Your task to perform on an android device: Search for alienware area 51 on costco, select the first entry, add it to the cart, then select checkout. Image 0: 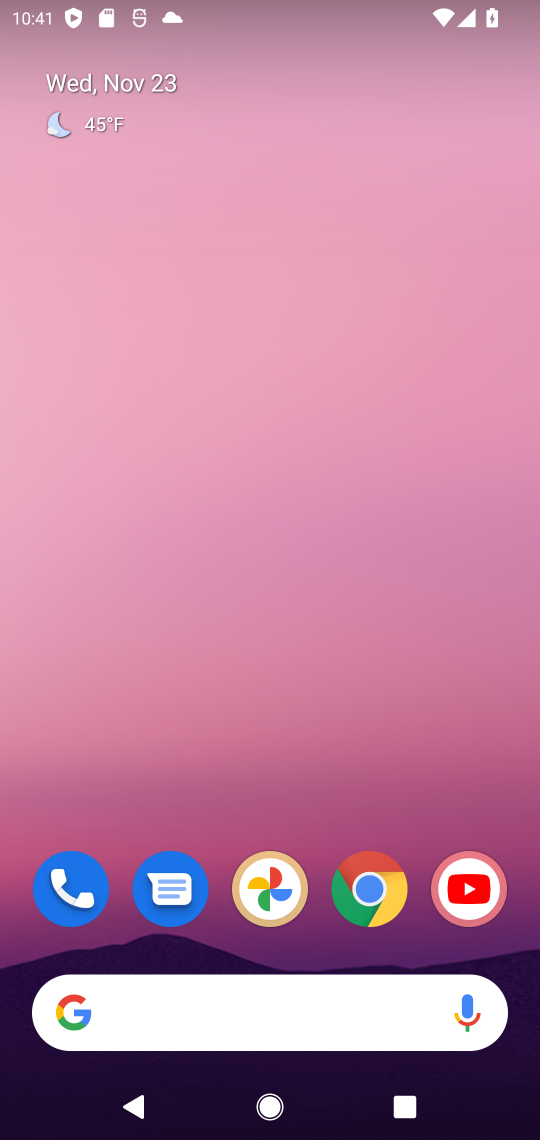
Step 0: click (364, 893)
Your task to perform on an android device: Search for alienware area 51 on costco, select the first entry, add it to the cart, then select checkout. Image 1: 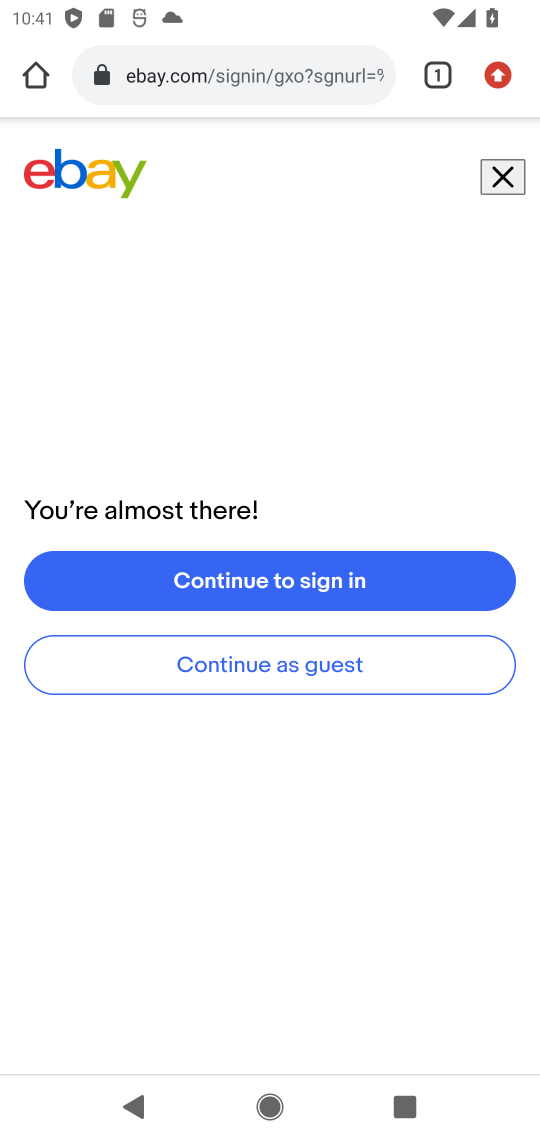
Step 1: click (186, 84)
Your task to perform on an android device: Search for alienware area 51 on costco, select the first entry, add it to the cart, then select checkout. Image 2: 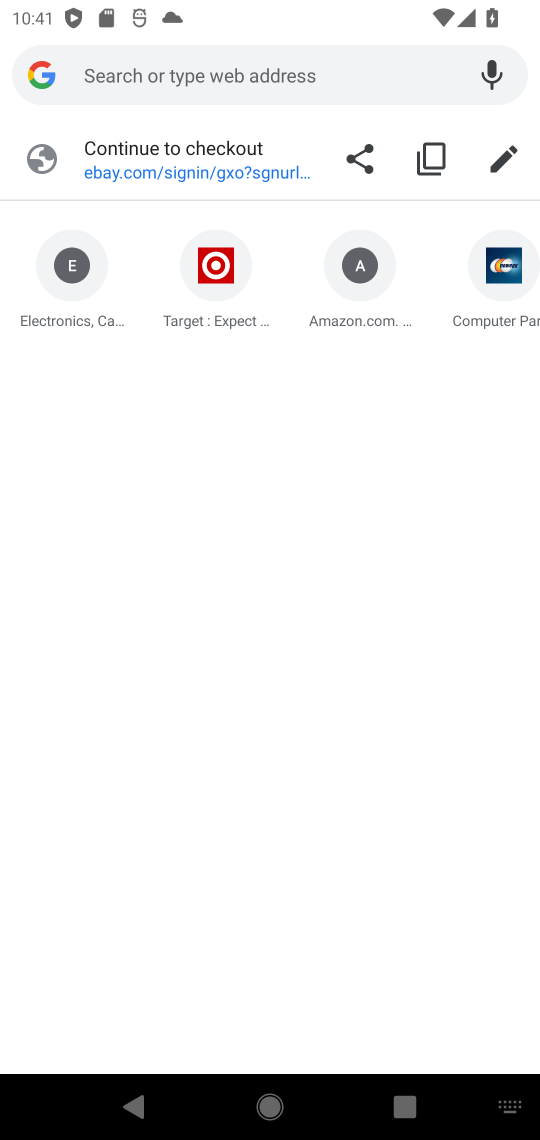
Step 2: type "costco.com"
Your task to perform on an android device: Search for alienware area 51 on costco, select the first entry, add it to the cart, then select checkout. Image 3: 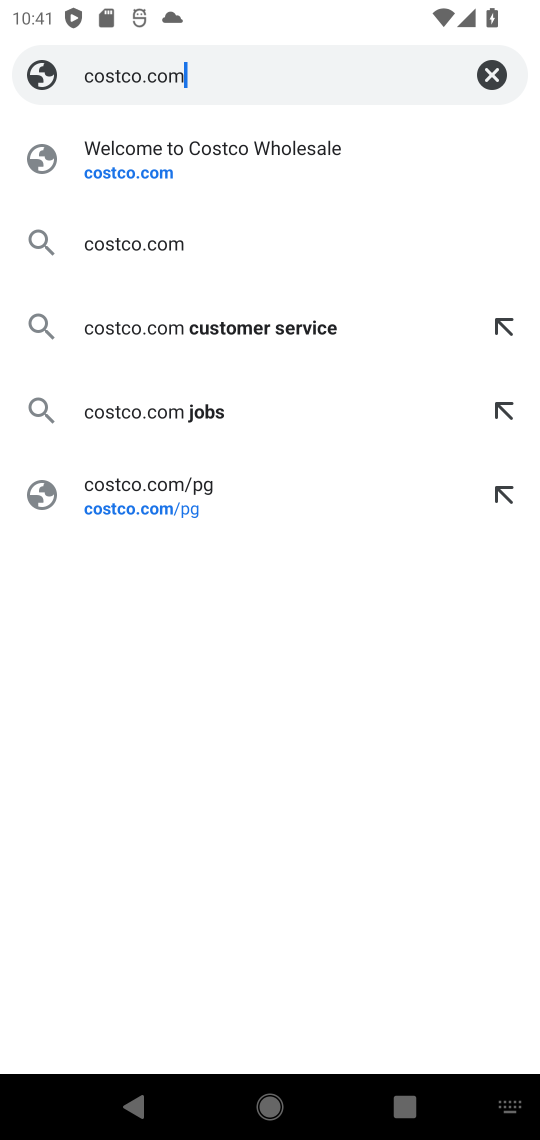
Step 3: click (97, 171)
Your task to perform on an android device: Search for alienware area 51 on costco, select the first entry, add it to the cart, then select checkout. Image 4: 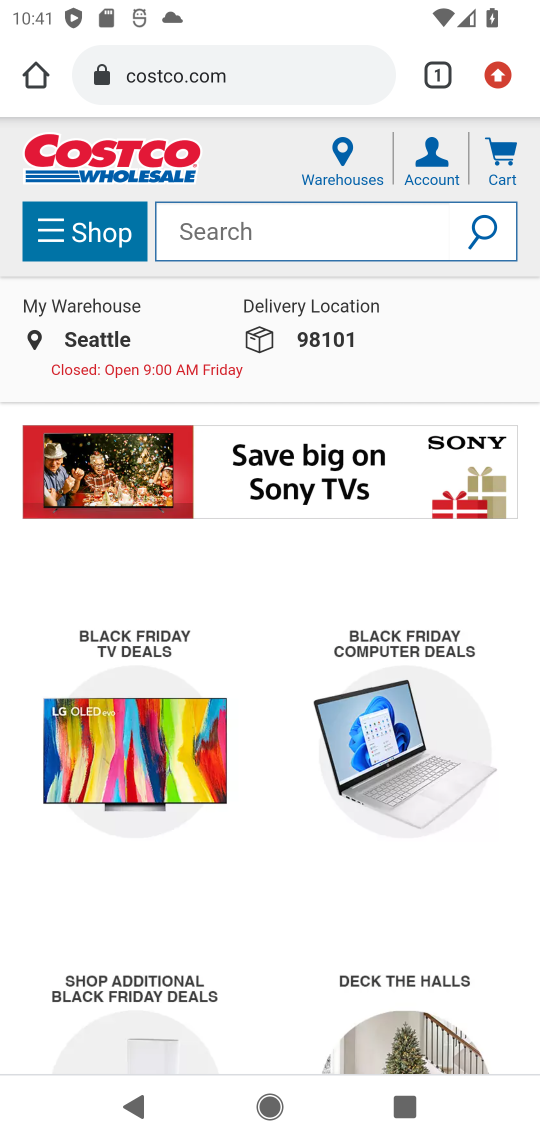
Step 4: click (237, 229)
Your task to perform on an android device: Search for alienware area 51 on costco, select the first entry, add it to the cart, then select checkout. Image 5: 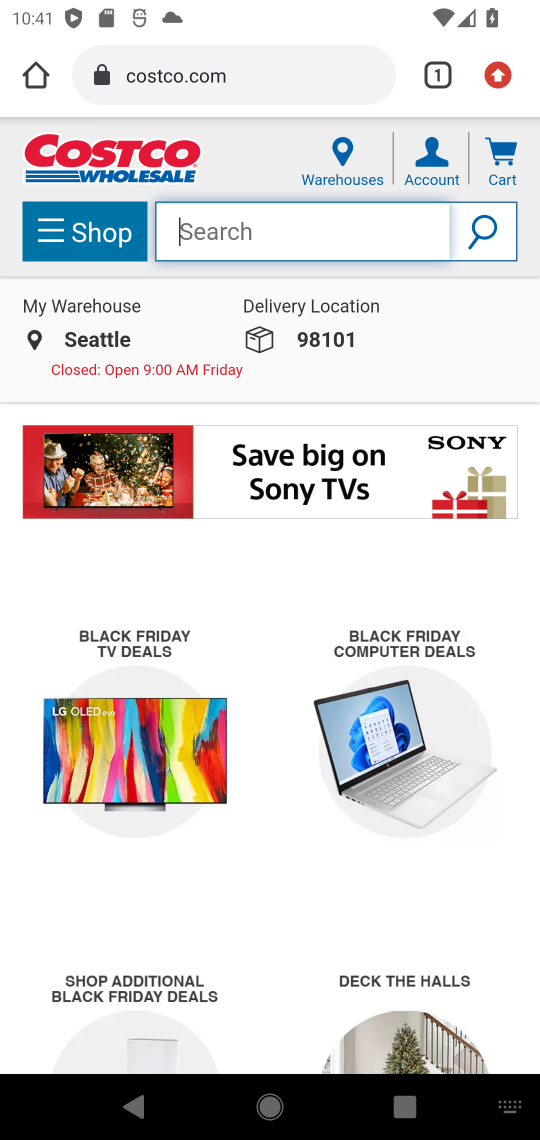
Step 5: type "alienware area 51"
Your task to perform on an android device: Search for alienware area 51 on costco, select the first entry, add it to the cart, then select checkout. Image 6: 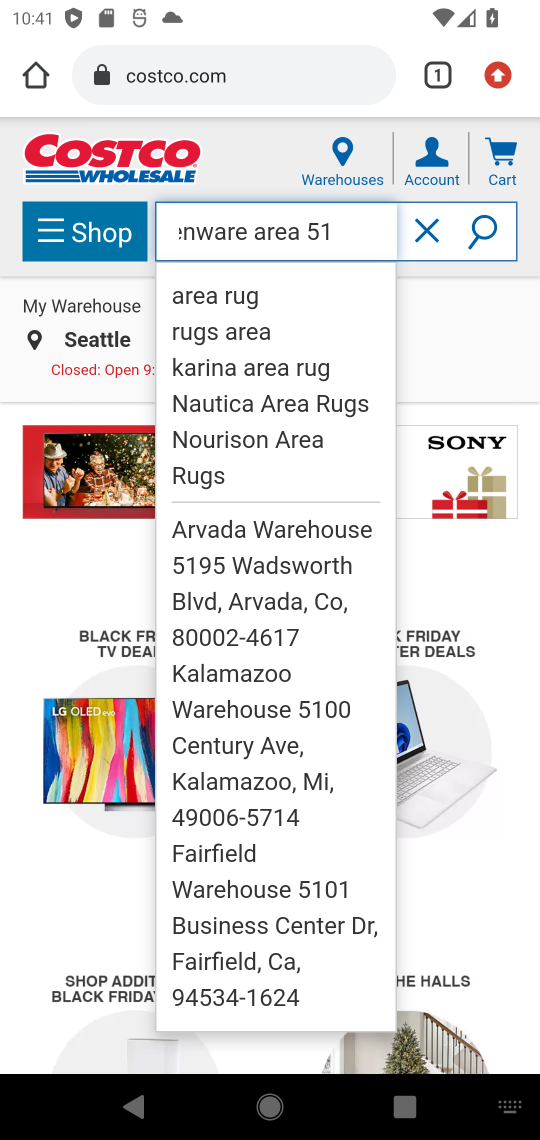
Step 6: click (483, 236)
Your task to perform on an android device: Search for alienware area 51 on costco, select the first entry, add it to the cart, then select checkout. Image 7: 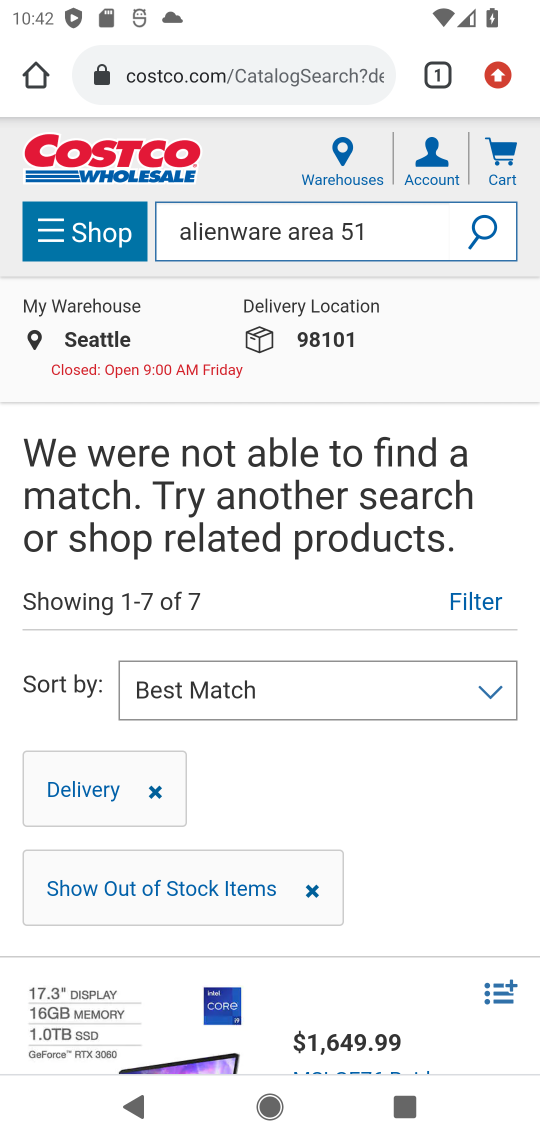
Step 7: task complete